Your task to perform on an android device: visit the assistant section in the google photos Image 0: 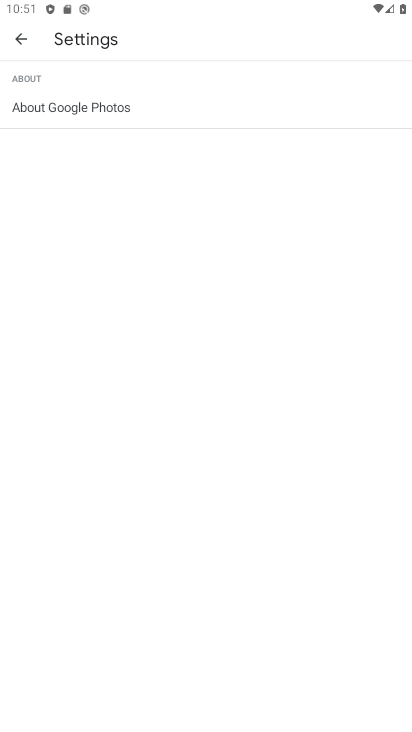
Step 0: press home button
Your task to perform on an android device: visit the assistant section in the google photos Image 1: 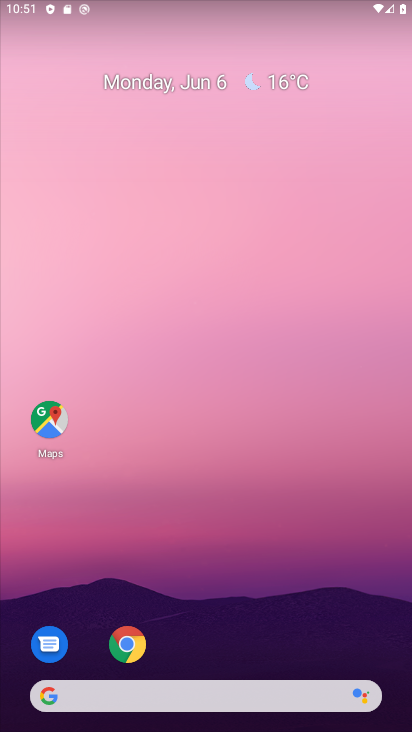
Step 1: drag from (198, 667) to (325, 232)
Your task to perform on an android device: visit the assistant section in the google photos Image 2: 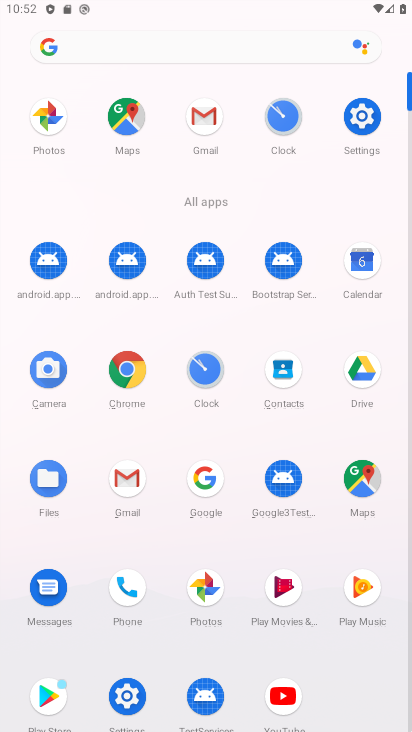
Step 2: click (209, 591)
Your task to perform on an android device: visit the assistant section in the google photos Image 3: 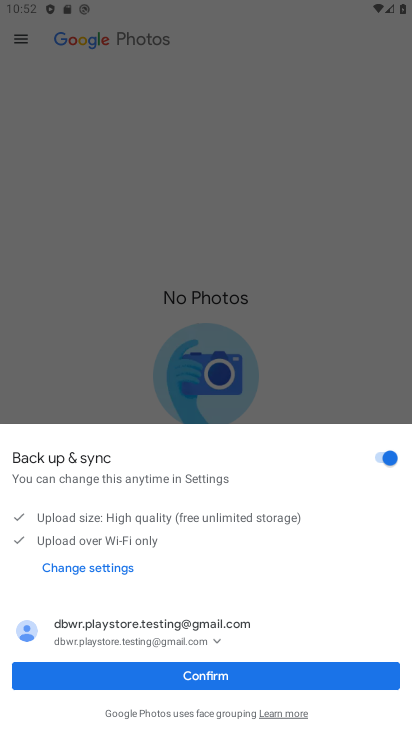
Step 3: click (246, 678)
Your task to perform on an android device: visit the assistant section in the google photos Image 4: 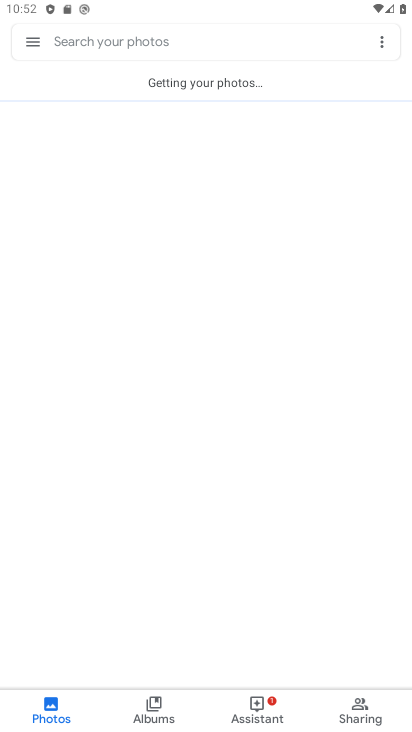
Step 4: click (275, 712)
Your task to perform on an android device: visit the assistant section in the google photos Image 5: 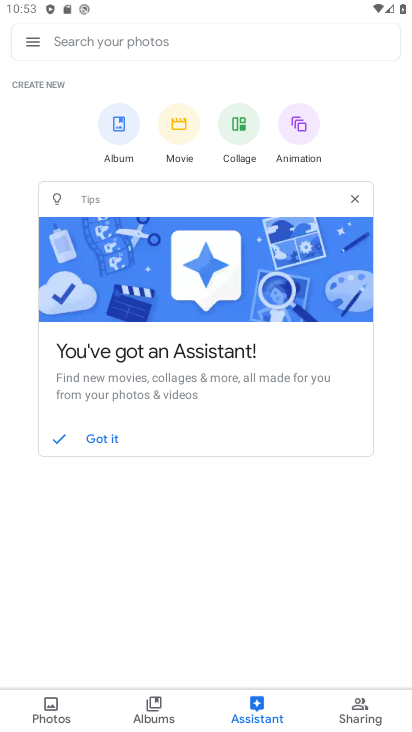
Step 5: click (60, 711)
Your task to perform on an android device: visit the assistant section in the google photos Image 6: 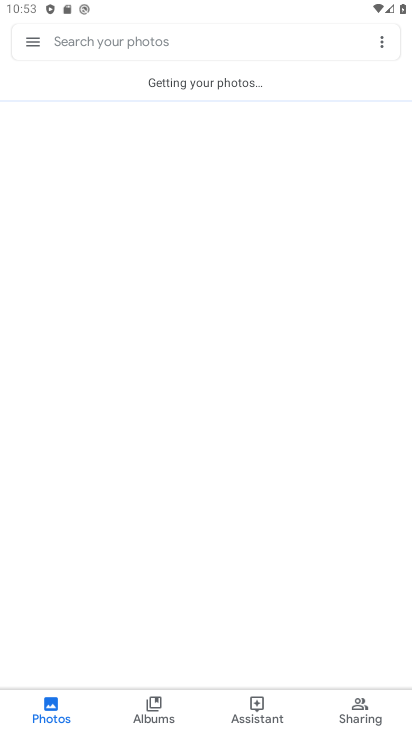
Step 6: task complete